Your task to perform on an android device: Search for seafood restaurants on Google Maps Image 0: 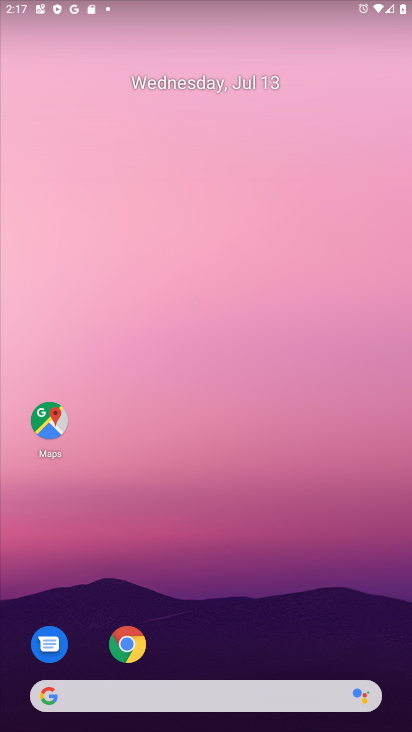
Step 0: click (52, 435)
Your task to perform on an android device: Search for seafood restaurants on Google Maps Image 1: 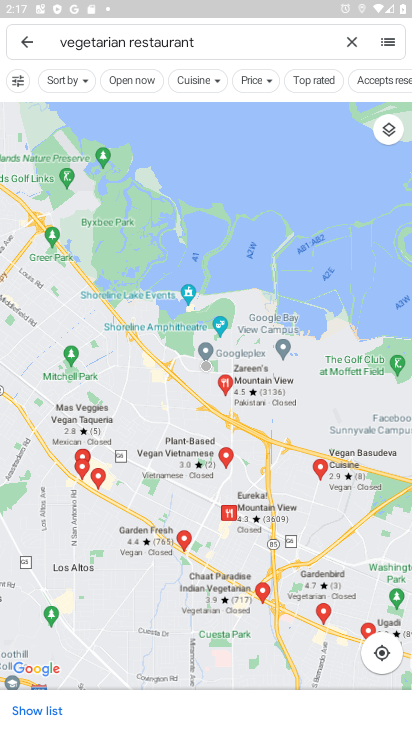
Step 1: click (348, 40)
Your task to perform on an android device: Search for seafood restaurants on Google Maps Image 2: 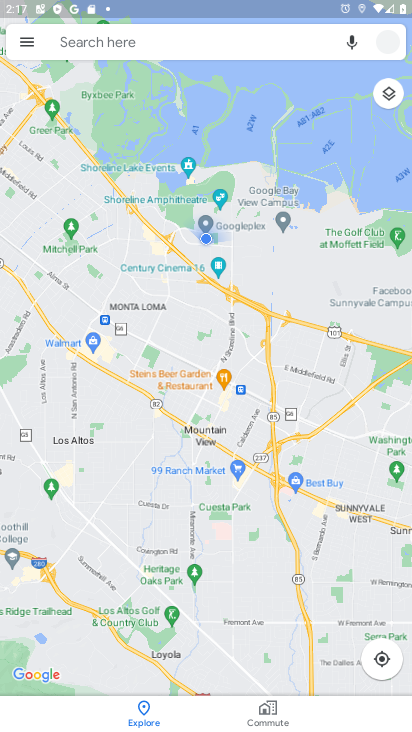
Step 2: click (119, 36)
Your task to perform on an android device: Search for seafood restaurants on Google Maps Image 3: 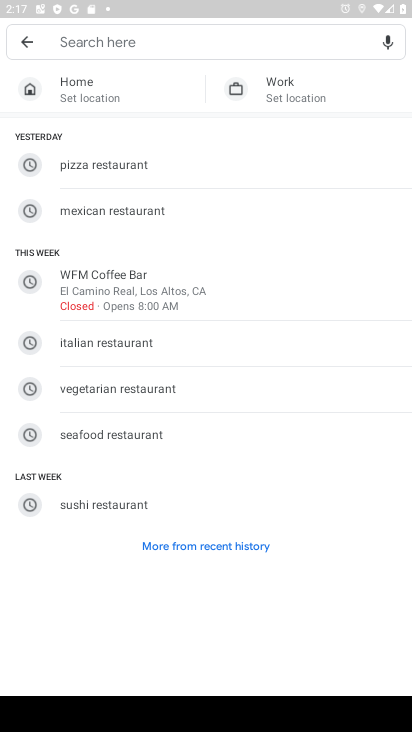
Step 3: click (109, 437)
Your task to perform on an android device: Search for seafood restaurants on Google Maps Image 4: 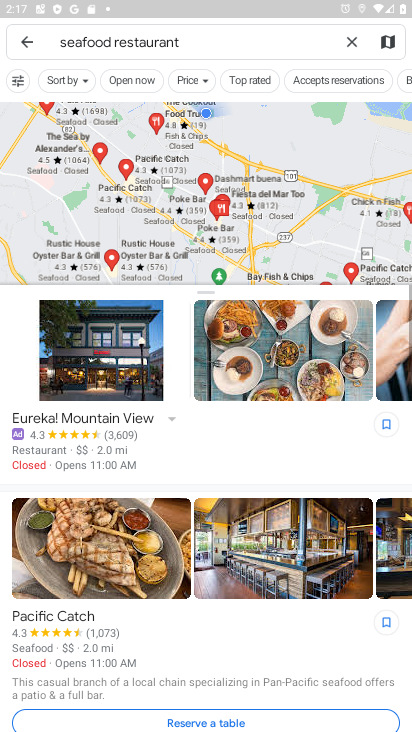
Step 4: task complete